Your task to perform on an android device: turn pop-ups off in chrome Image 0: 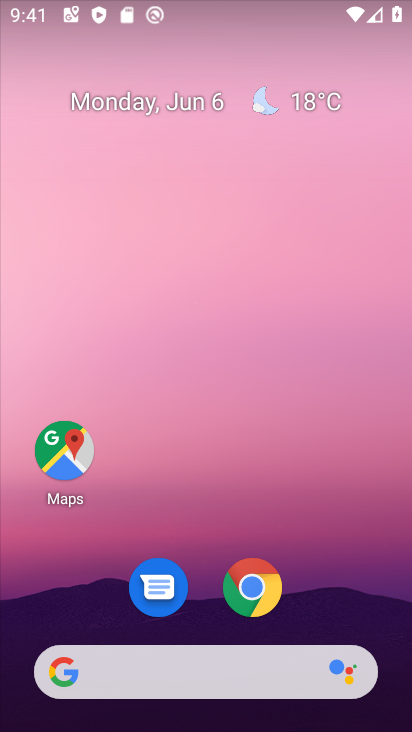
Step 0: click (253, 592)
Your task to perform on an android device: turn pop-ups off in chrome Image 1: 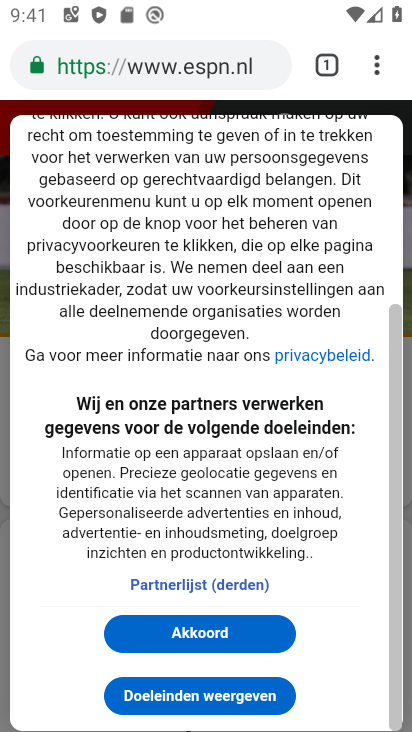
Step 1: click (376, 71)
Your task to perform on an android device: turn pop-ups off in chrome Image 2: 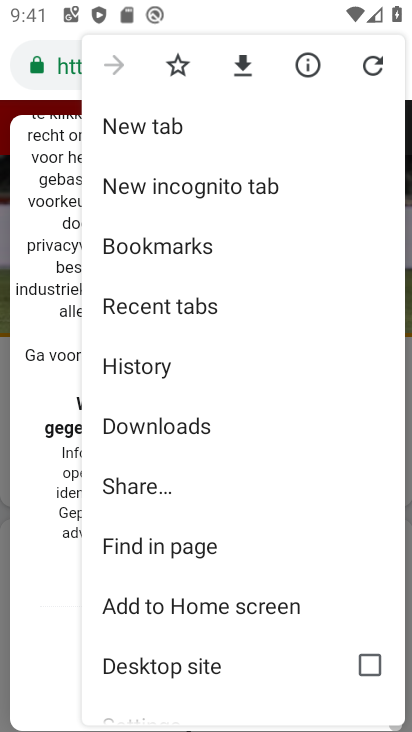
Step 2: drag from (273, 641) to (250, 147)
Your task to perform on an android device: turn pop-ups off in chrome Image 3: 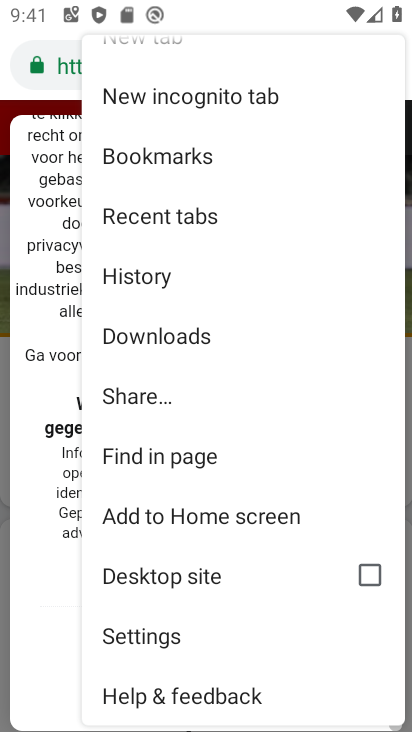
Step 3: click (178, 631)
Your task to perform on an android device: turn pop-ups off in chrome Image 4: 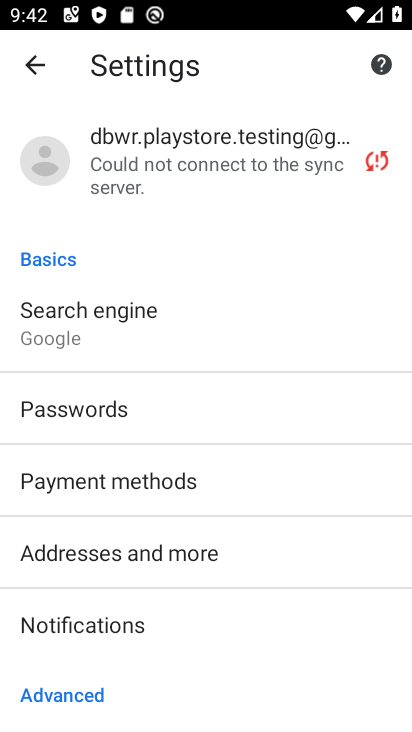
Step 4: drag from (157, 627) to (138, 187)
Your task to perform on an android device: turn pop-ups off in chrome Image 5: 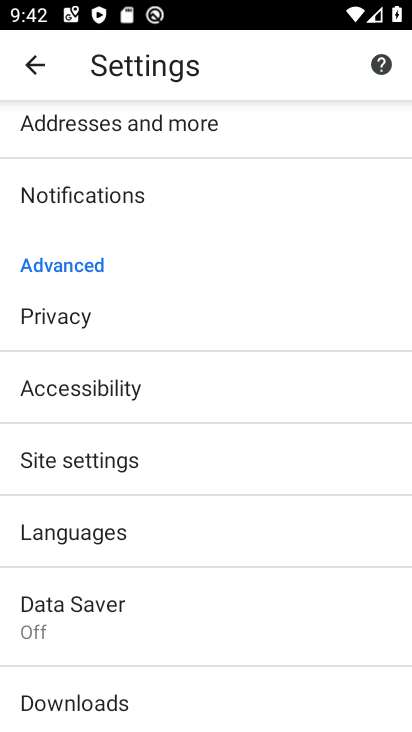
Step 5: click (165, 451)
Your task to perform on an android device: turn pop-ups off in chrome Image 6: 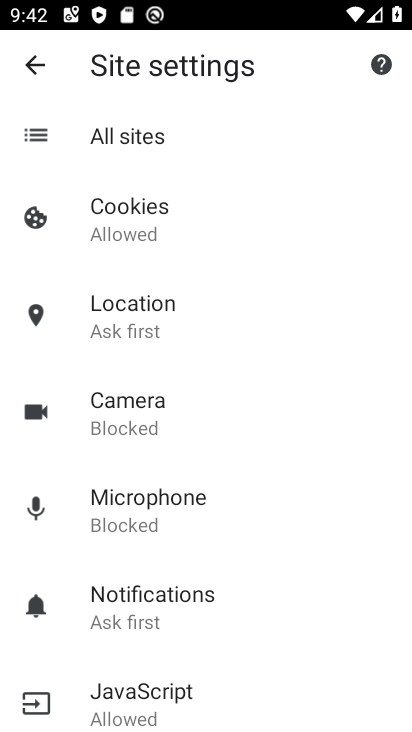
Step 6: drag from (244, 639) to (189, 248)
Your task to perform on an android device: turn pop-ups off in chrome Image 7: 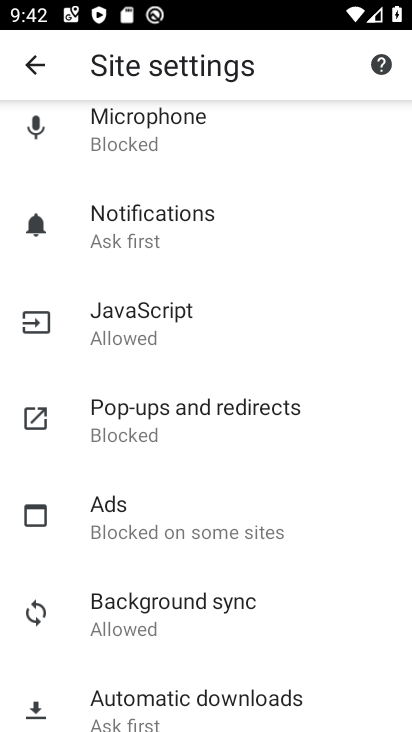
Step 7: click (172, 399)
Your task to perform on an android device: turn pop-ups off in chrome Image 8: 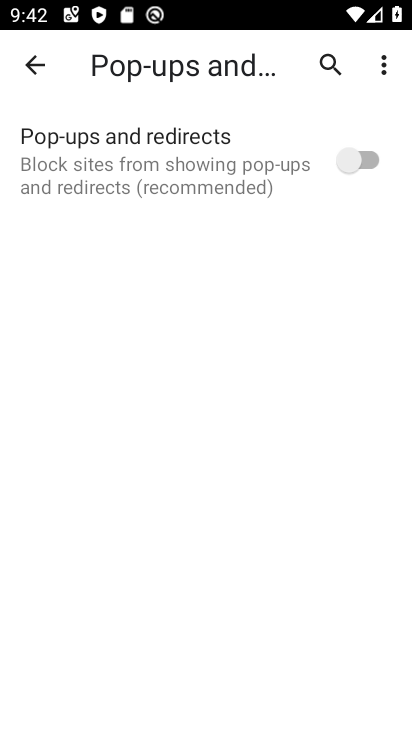
Step 8: task complete